Your task to perform on an android device: Do I have any events today? Image 0: 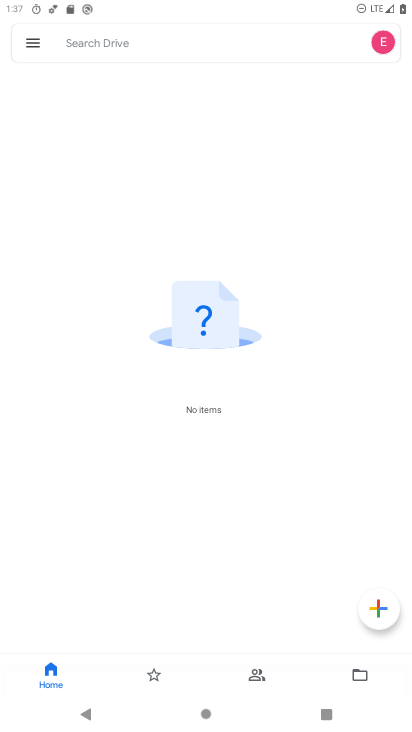
Step 0: press home button
Your task to perform on an android device: Do I have any events today? Image 1: 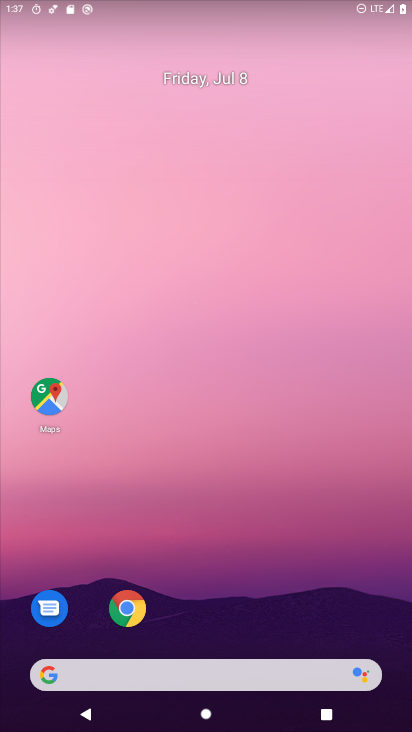
Step 1: drag from (231, 721) to (226, 135)
Your task to perform on an android device: Do I have any events today? Image 2: 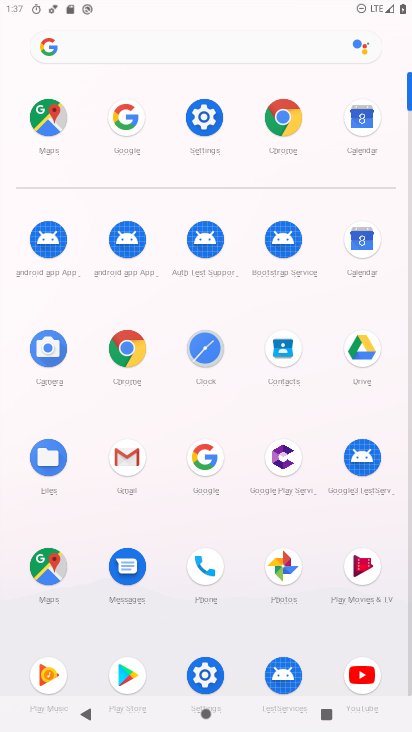
Step 2: click (362, 122)
Your task to perform on an android device: Do I have any events today? Image 3: 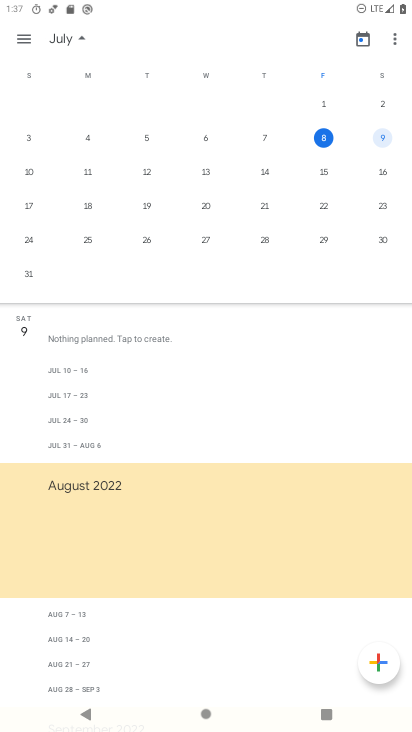
Step 3: click (326, 141)
Your task to perform on an android device: Do I have any events today? Image 4: 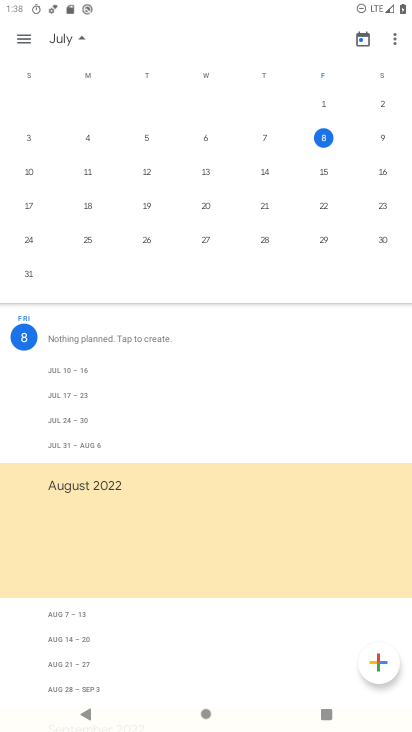
Step 4: click (326, 141)
Your task to perform on an android device: Do I have any events today? Image 5: 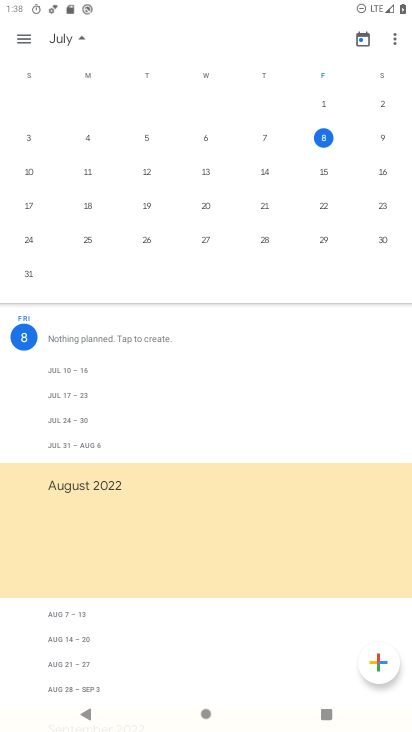
Step 5: click (24, 332)
Your task to perform on an android device: Do I have any events today? Image 6: 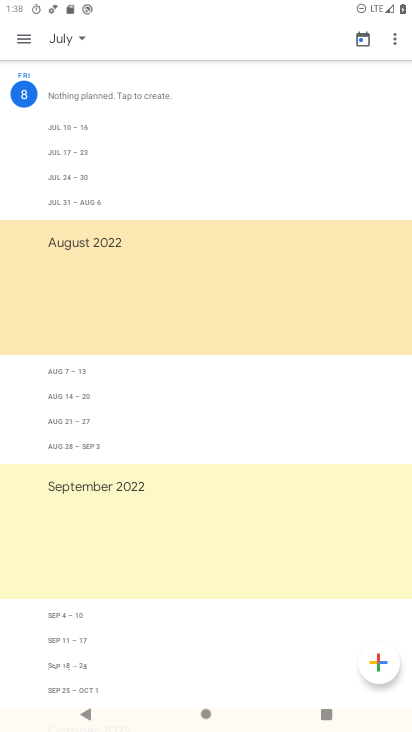
Step 6: task complete